Your task to perform on an android device: turn on wifi Image 0: 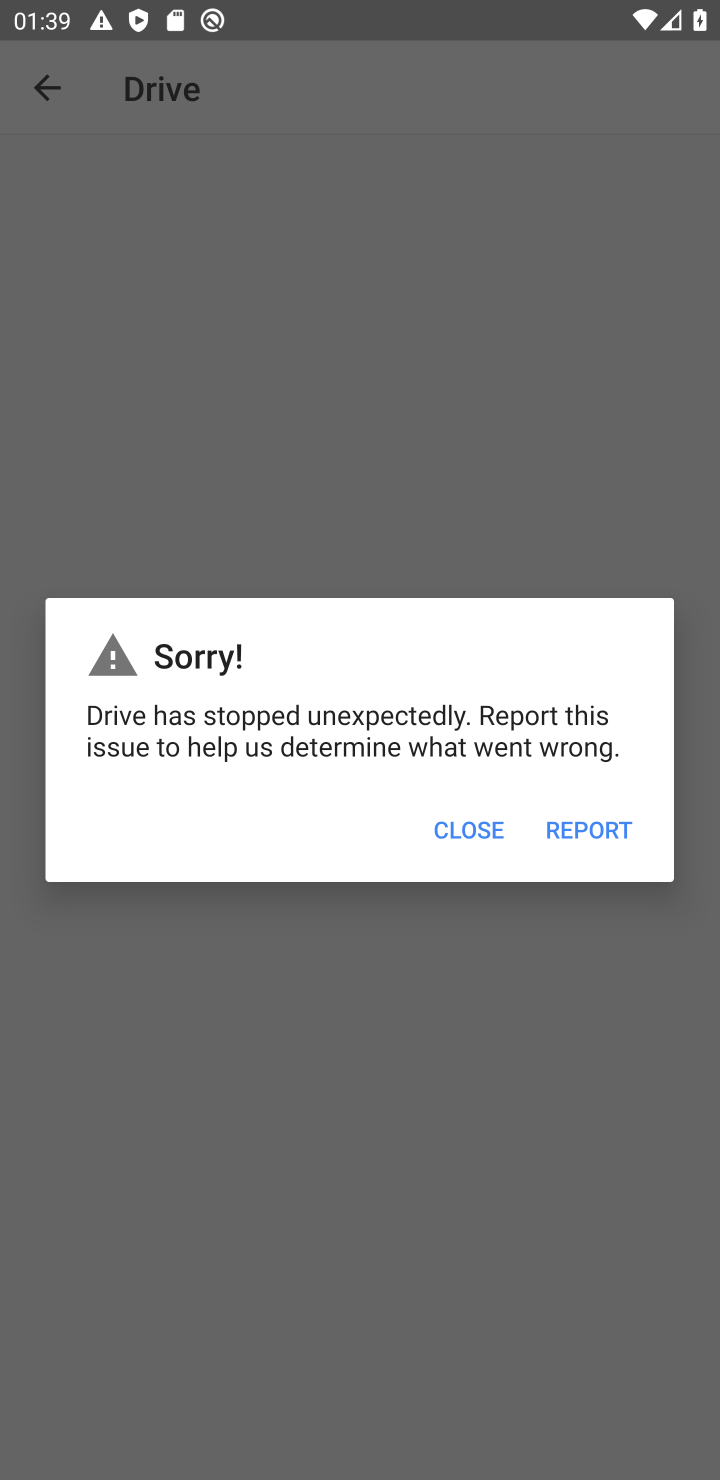
Step 0: press home button
Your task to perform on an android device: turn on wifi Image 1: 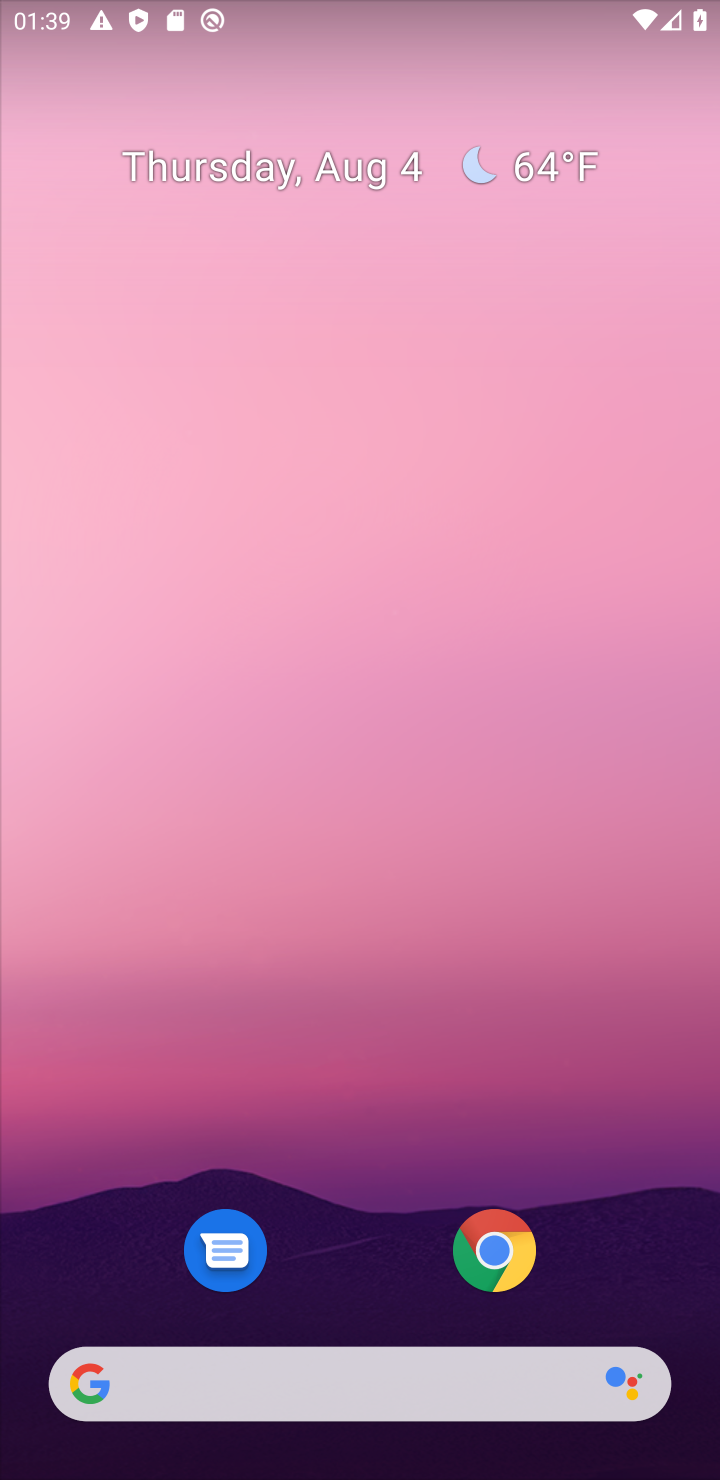
Step 1: drag from (342, 1209) to (196, 364)
Your task to perform on an android device: turn on wifi Image 2: 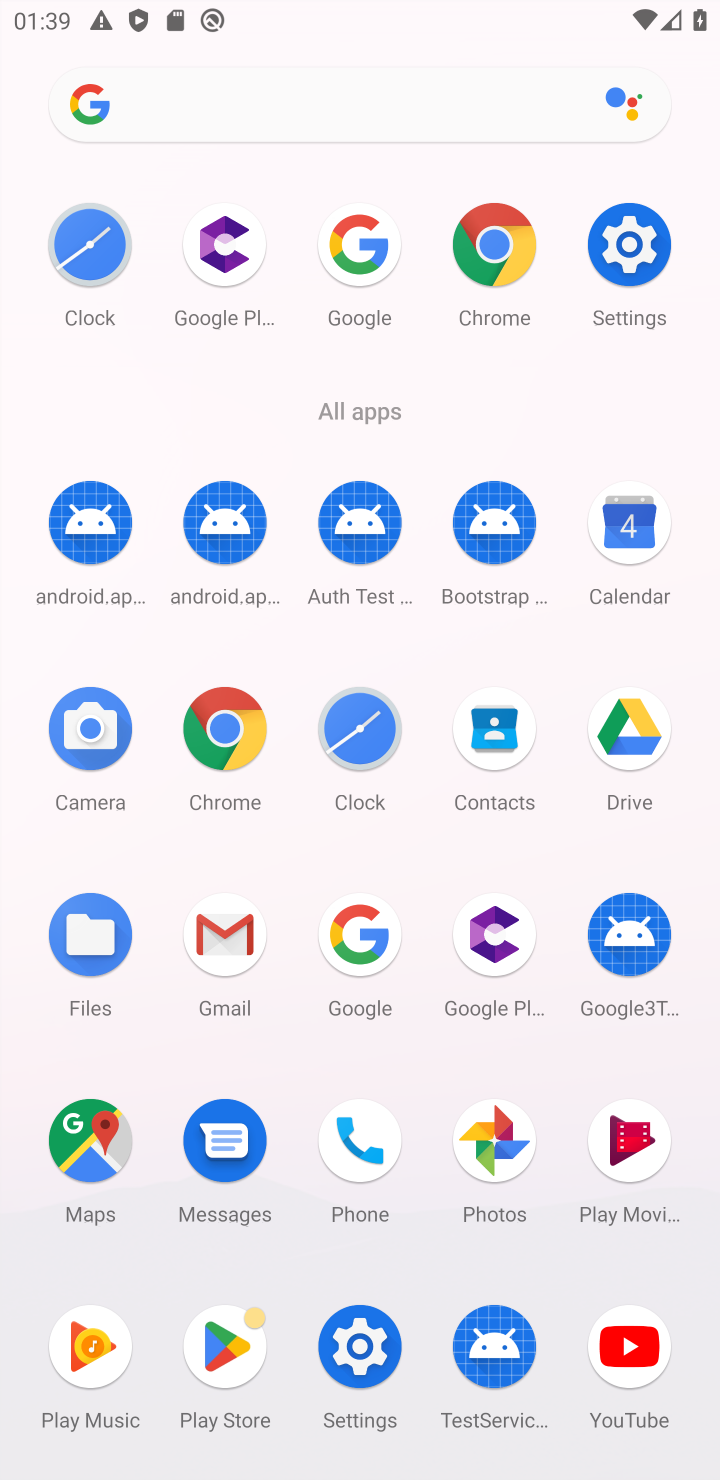
Step 2: click (633, 234)
Your task to perform on an android device: turn on wifi Image 3: 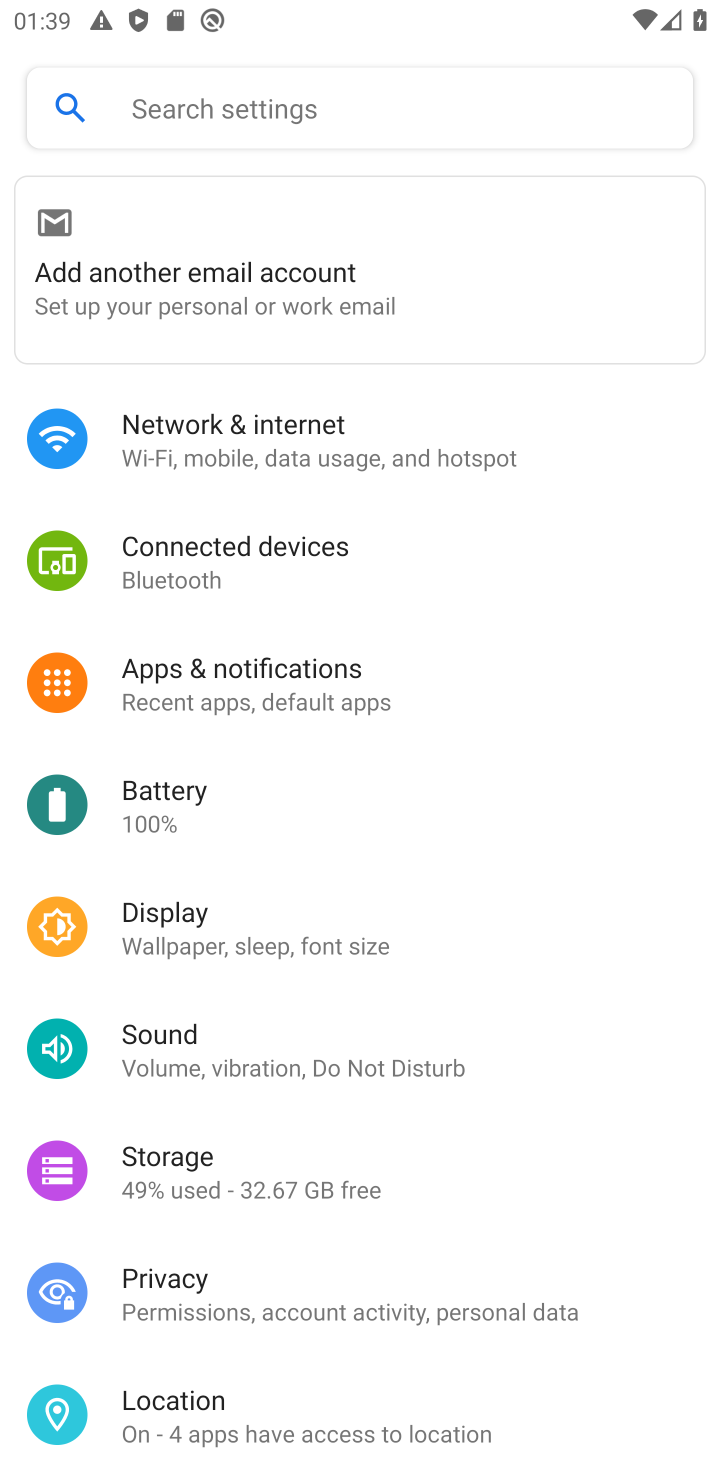
Step 3: click (325, 417)
Your task to perform on an android device: turn on wifi Image 4: 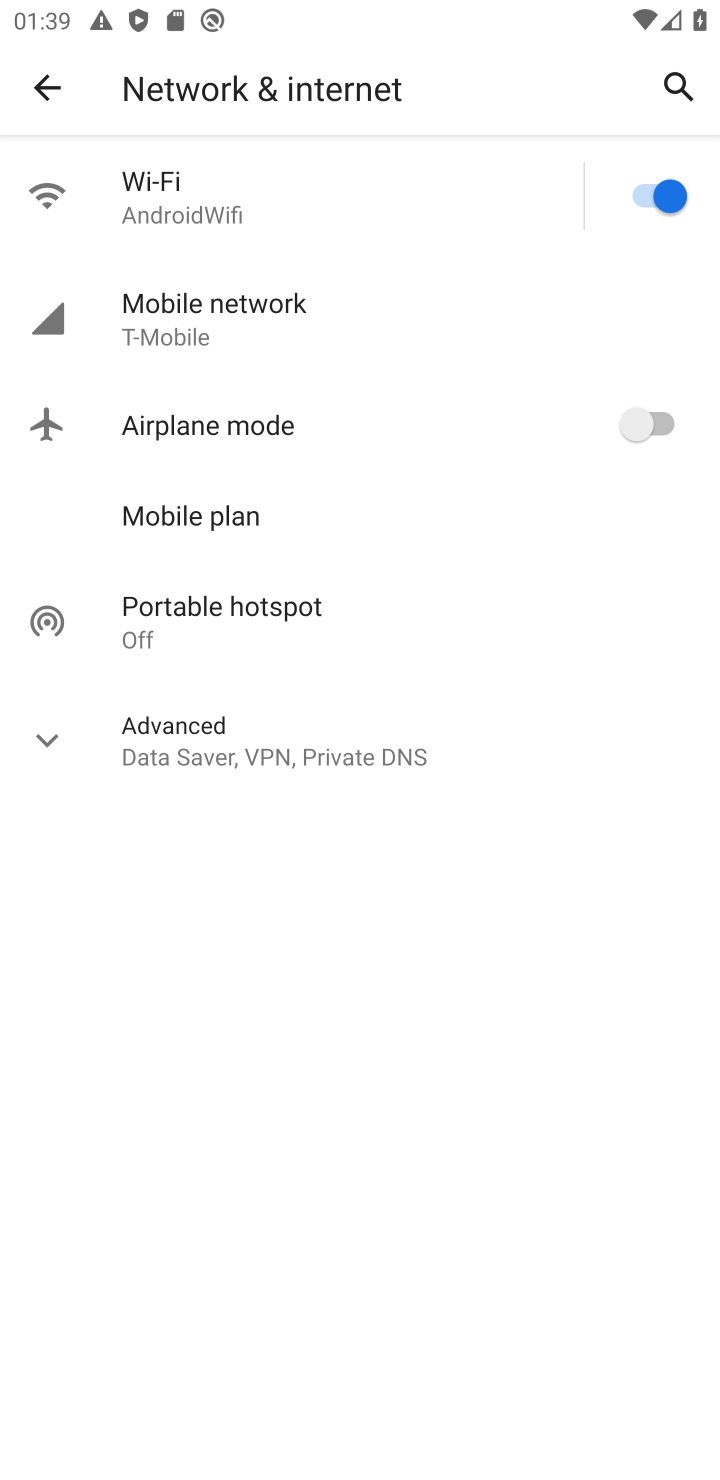
Step 4: task complete